Your task to perform on an android device: open a new tab in the chrome app Image 0: 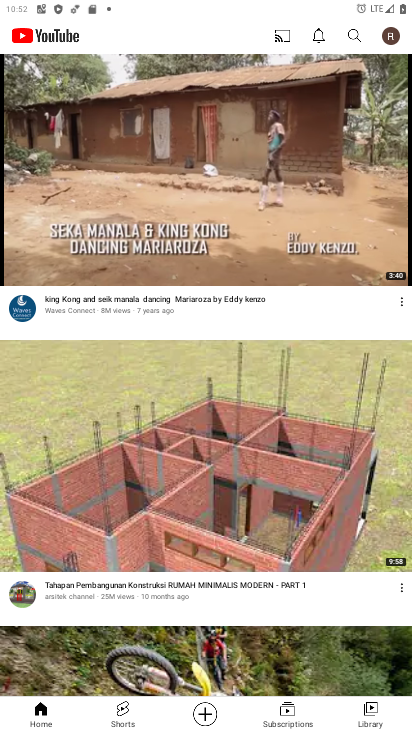
Step 0: press home button
Your task to perform on an android device: open a new tab in the chrome app Image 1: 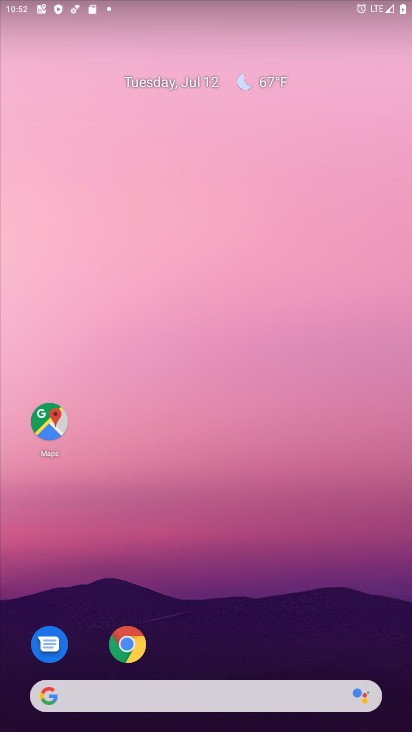
Step 1: drag from (364, 137) to (292, 630)
Your task to perform on an android device: open a new tab in the chrome app Image 2: 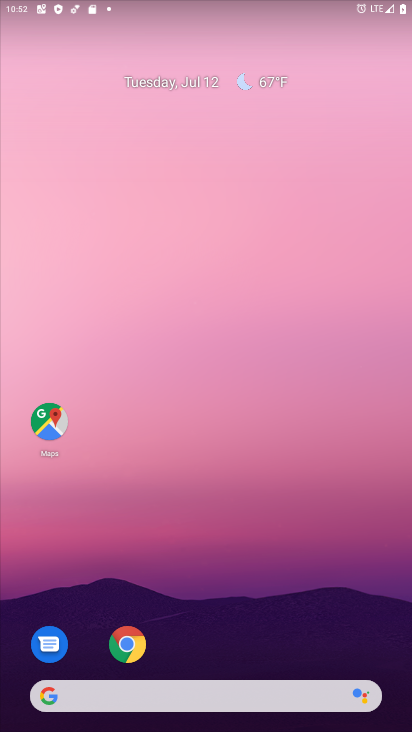
Step 2: drag from (192, 611) to (292, 174)
Your task to perform on an android device: open a new tab in the chrome app Image 3: 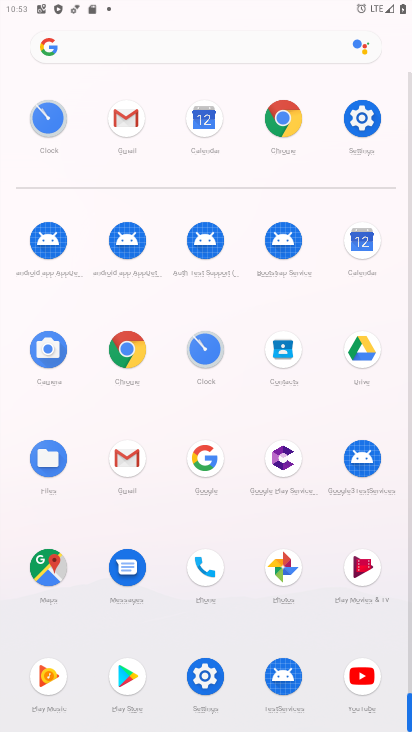
Step 3: click (133, 345)
Your task to perform on an android device: open a new tab in the chrome app Image 4: 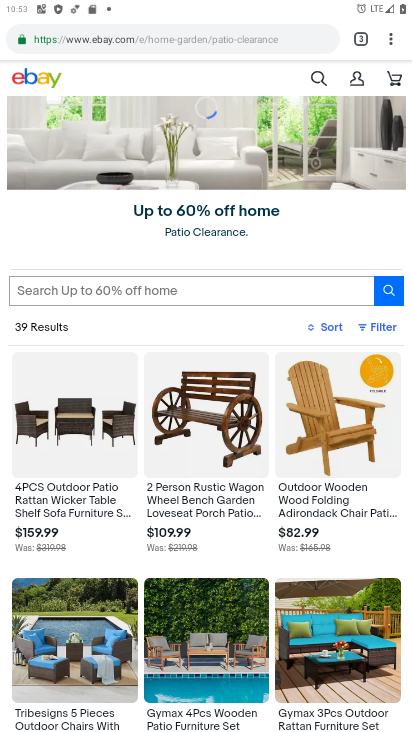
Step 4: press home button
Your task to perform on an android device: open a new tab in the chrome app Image 5: 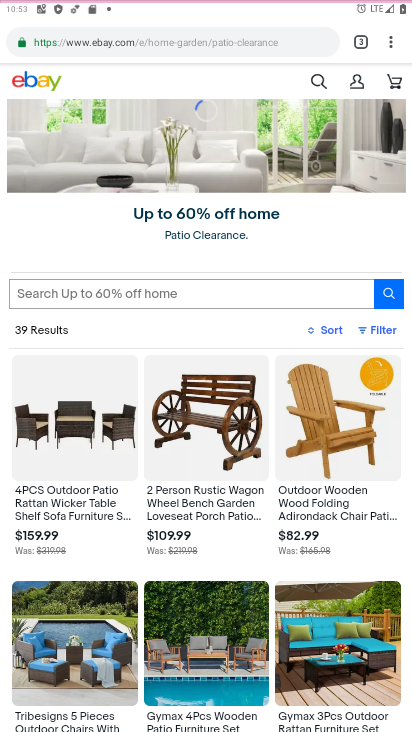
Step 5: drag from (203, 633) to (306, 24)
Your task to perform on an android device: open a new tab in the chrome app Image 6: 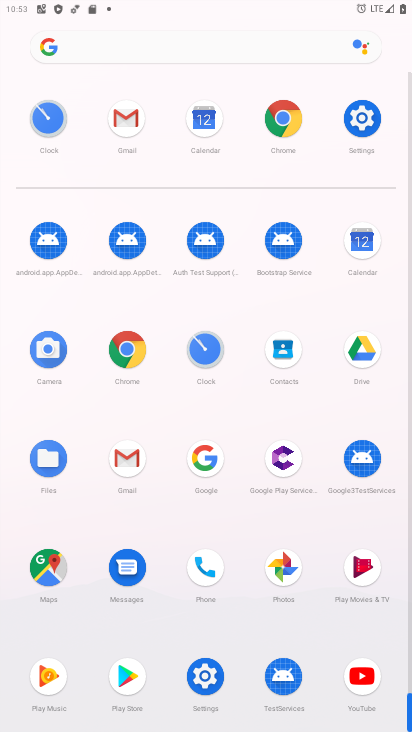
Step 6: click (122, 353)
Your task to perform on an android device: open a new tab in the chrome app Image 7: 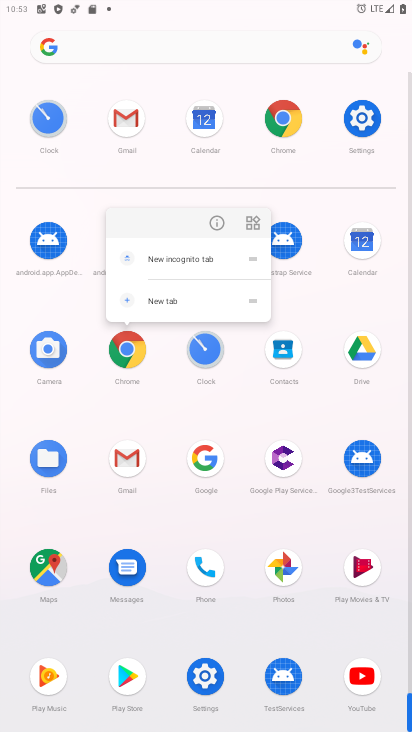
Step 7: click (212, 225)
Your task to perform on an android device: open a new tab in the chrome app Image 8: 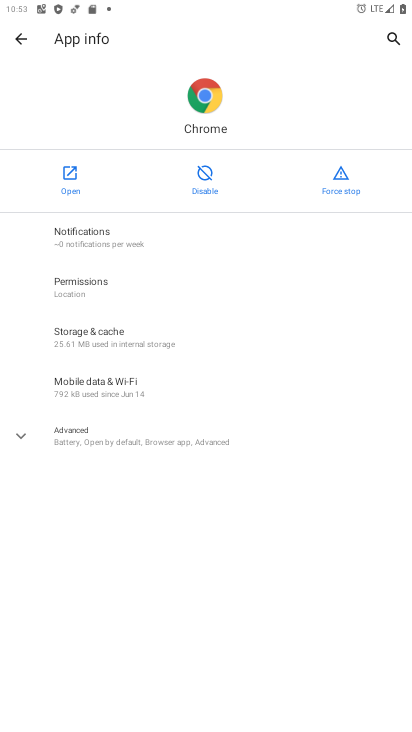
Step 8: drag from (145, 630) to (222, 229)
Your task to perform on an android device: open a new tab in the chrome app Image 9: 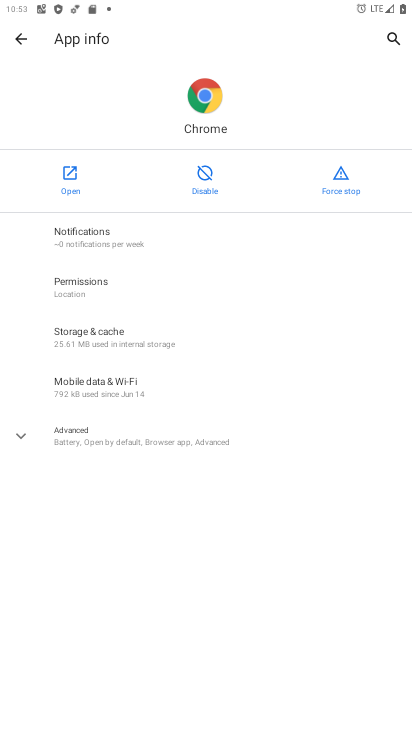
Step 9: click (68, 170)
Your task to perform on an android device: open a new tab in the chrome app Image 10: 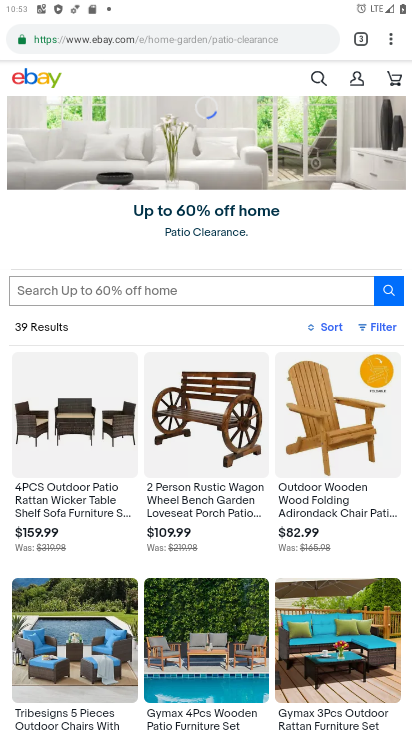
Step 10: drag from (157, 259) to (226, 663)
Your task to perform on an android device: open a new tab in the chrome app Image 11: 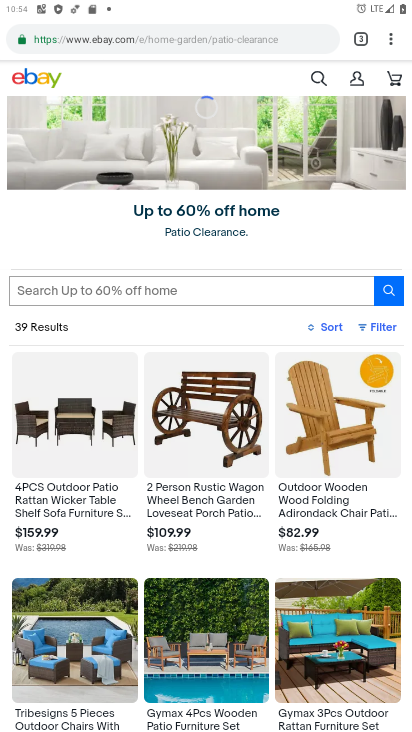
Step 11: click (392, 43)
Your task to perform on an android device: open a new tab in the chrome app Image 12: 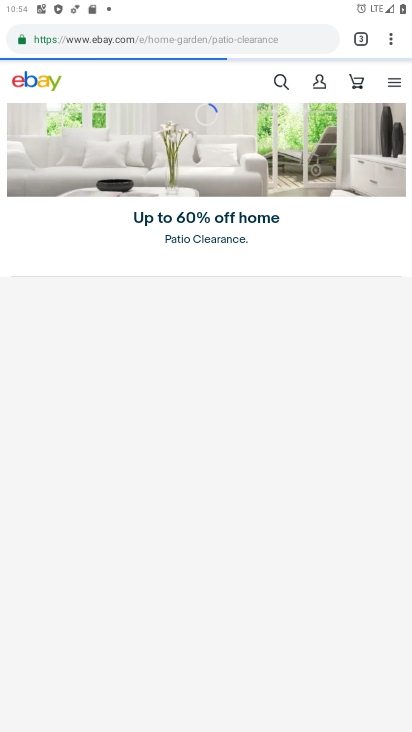
Step 12: click (392, 43)
Your task to perform on an android device: open a new tab in the chrome app Image 13: 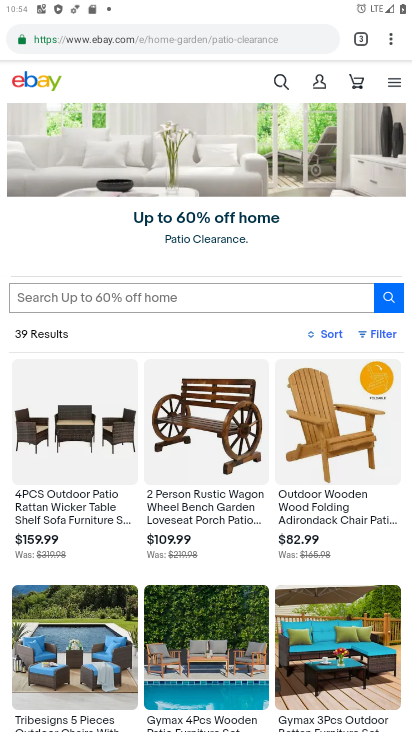
Step 13: drag from (392, 43) to (267, 126)
Your task to perform on an android device: open a new tab in the chrome app Image 14: 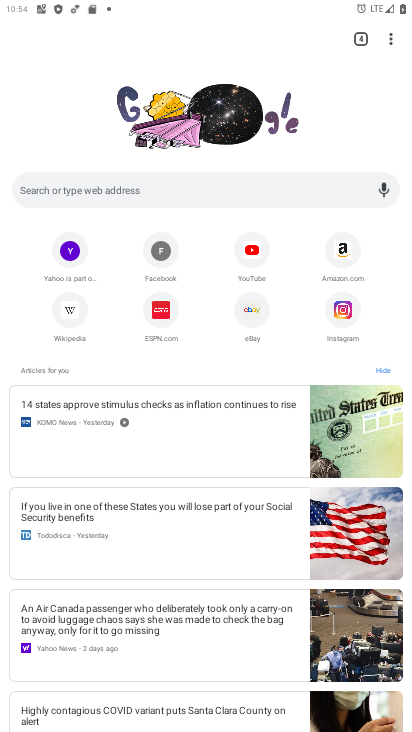
Step 14: drag from (175, 577) to (191, 2)
Your task to perform on an android device: open a new tab in the chrome app Image 15: 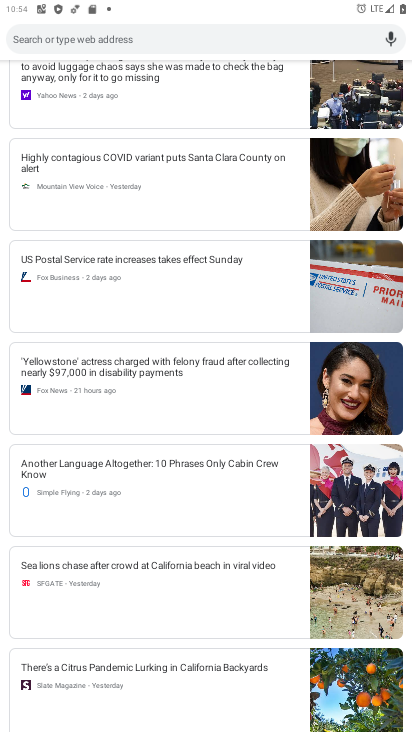
Step 15: drag from (205, 388) to (251, 715)
Your task to perform on an android device: open a new tab in the chrome app Image 16: 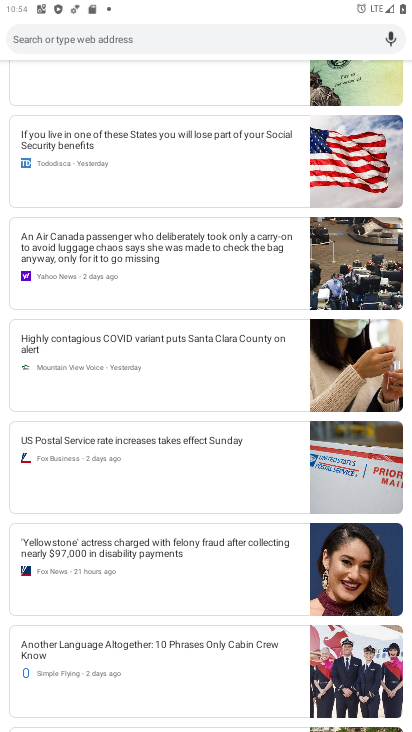
Step 16: drag from (237, 143) to (287, 725)
Your task to perform on an android device: open a new tab in the chrome app Image 17: 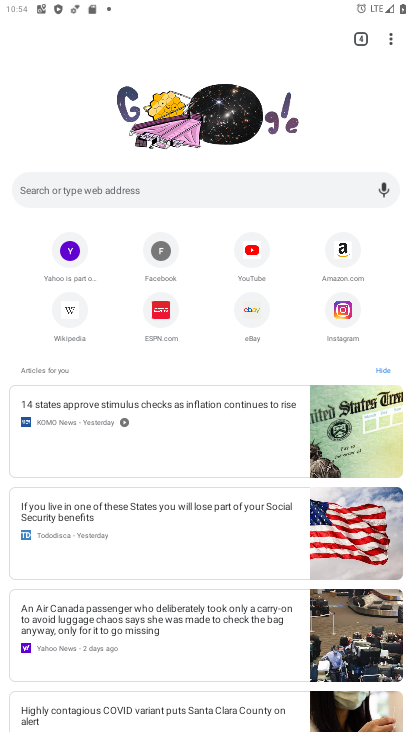
Step 17: click (392, 38)
Your task to perform on an android device: open a new tab in the chrome app Image 18: 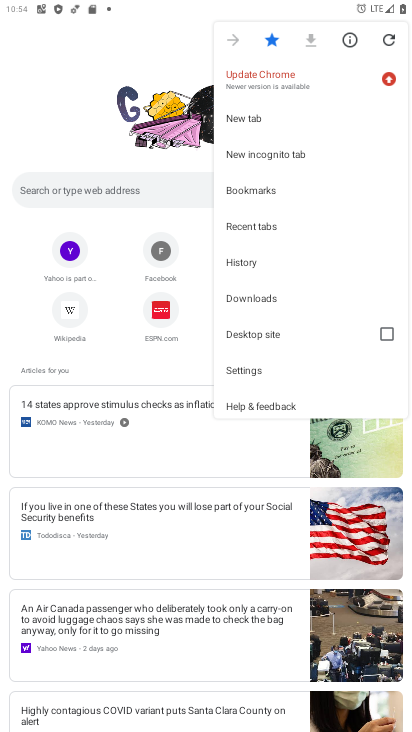
Step 18: click (261, 113)
Your task to perform on an android device: open a new tab in the chrome app Image 19: 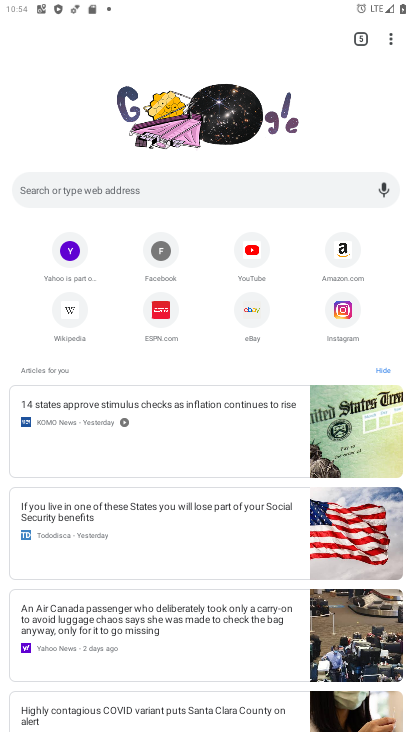
Step 19: task complete